Your task to perform on an android device: Go to battery settings Image 0: 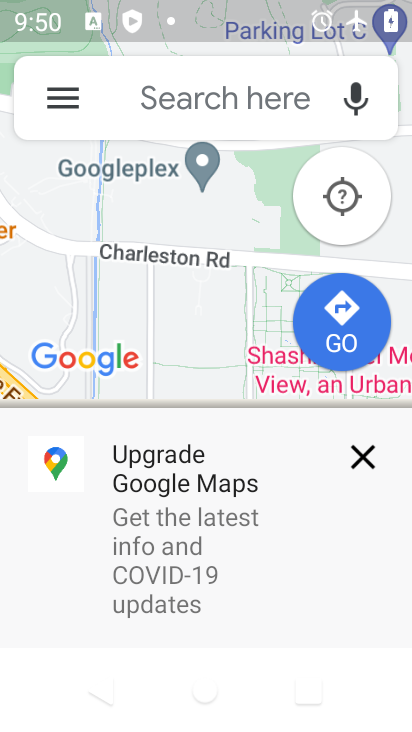
Step 0: press home button
Your task to perform on an android device: Go to battery settings Image 1: 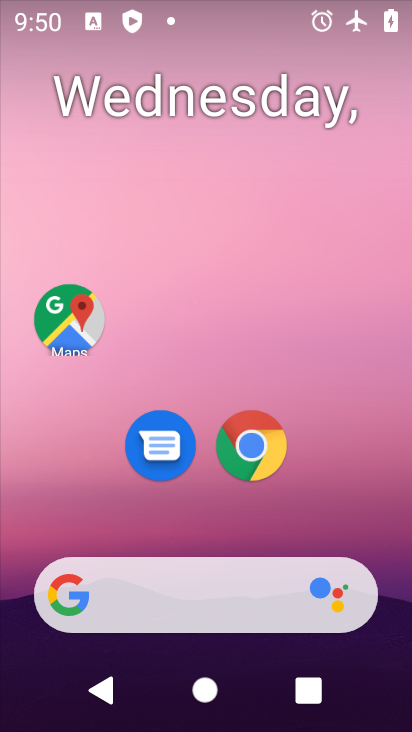
Step 1: drag from (351, 455) to (254, 78)
Your task to perform on an android device: Go to battery settings Image 2: 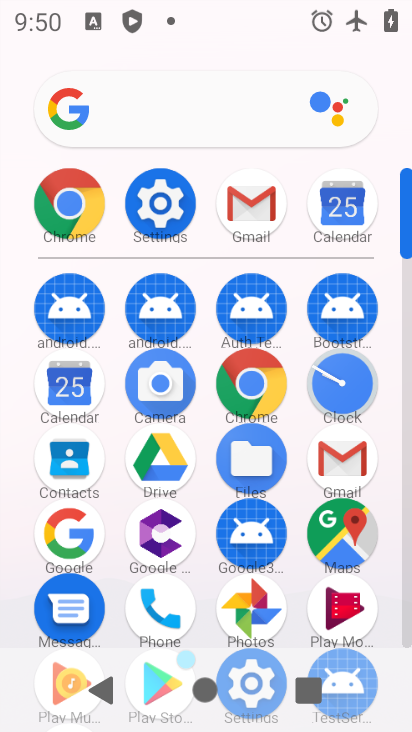
Step 2: click (150, 196)
Your task to perform on an android device: Go to battery settings Image 3: 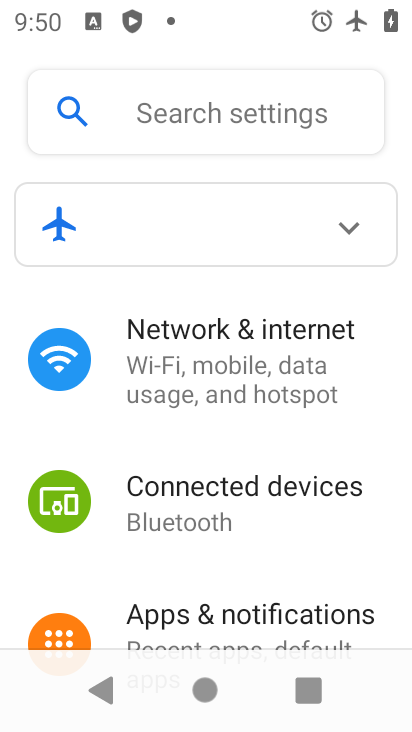
Step 3: drag from (241, 590) to (239, 231)
Your task to perform on an android device: Go to battery settings Image 4: 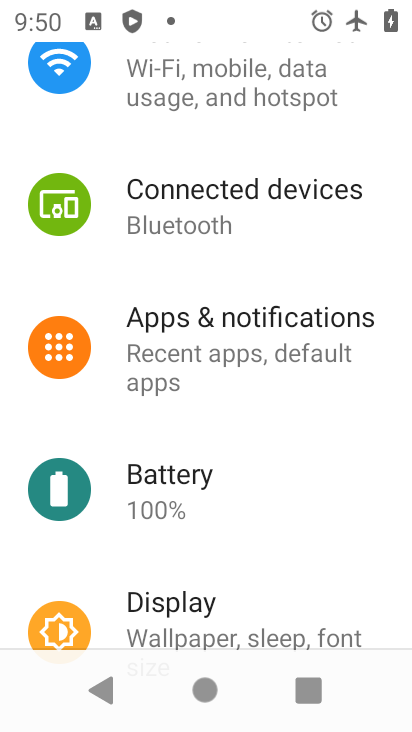
Step 4: click (167, 487)
Your task to perform on an android device: Go to battery settings Image 5: 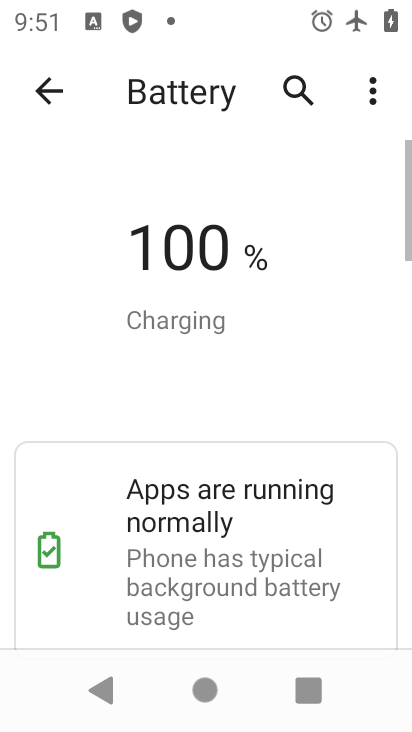
Step 5: task complete